Your task to perform on an android device: toggle location history Image 0: 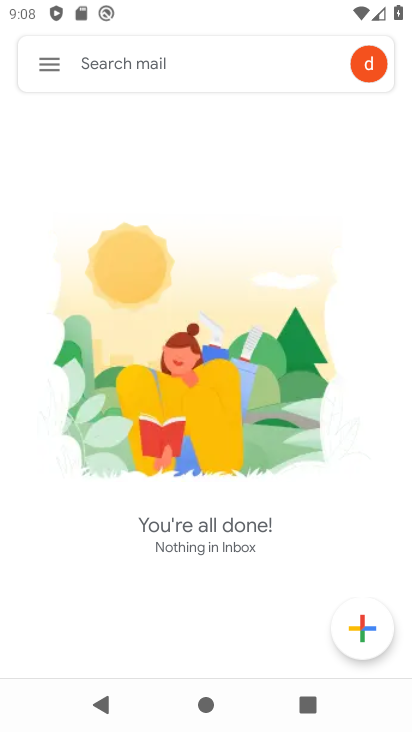
Step 0: click (45, 66)
Your task to perform on an android device: toggle location history Image 1: 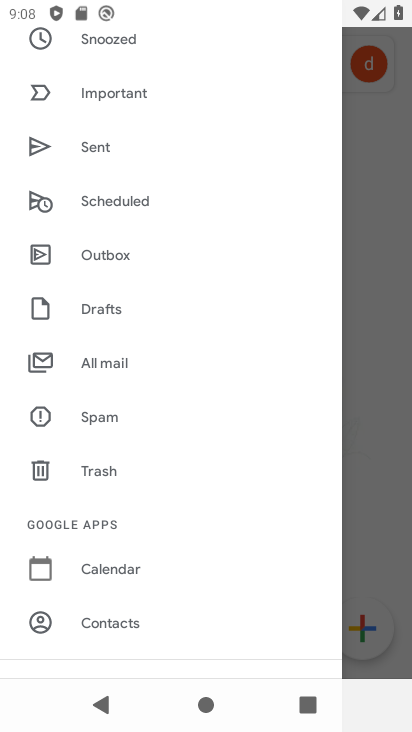
Step 1: drag from (132, 610) to (249, 188)
Your task to perform on an android device: toggle location history Image 2: 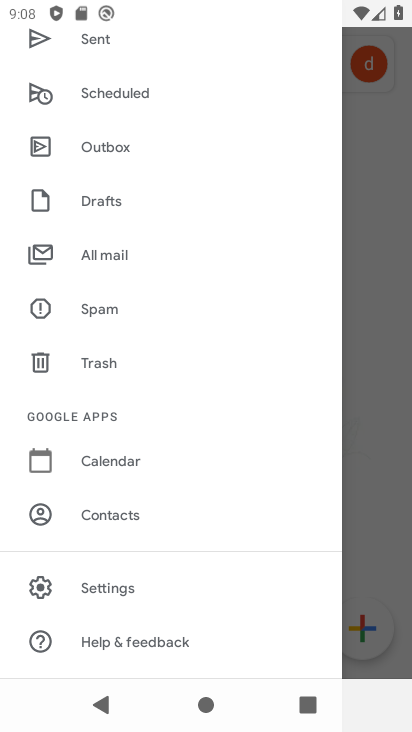
Step 2: press back button
Your task to perform on an android device: toggle location history Image 3: 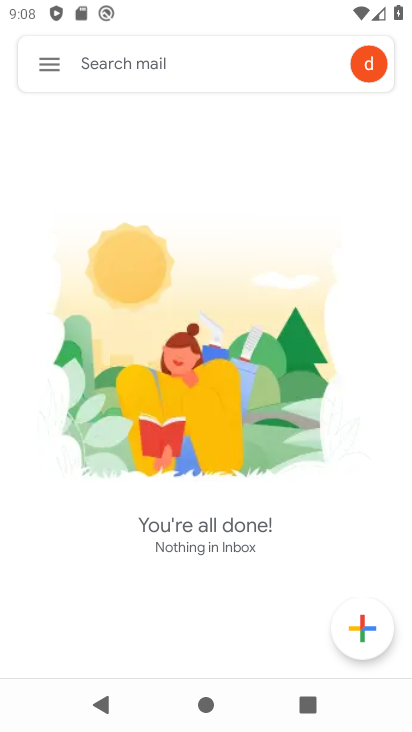
Step 3: press back button
Your task to perform on an android device: toggle location history Image 4: 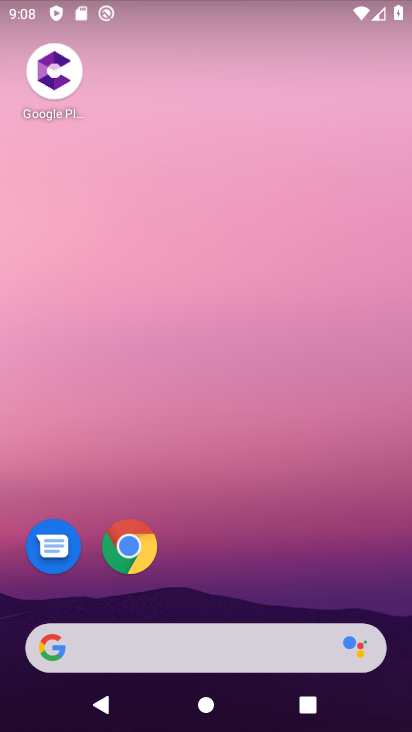
Step 4: drag from (231, 485) to (336, 47)
Your task to perform on an android device: toggle location history Image 5: 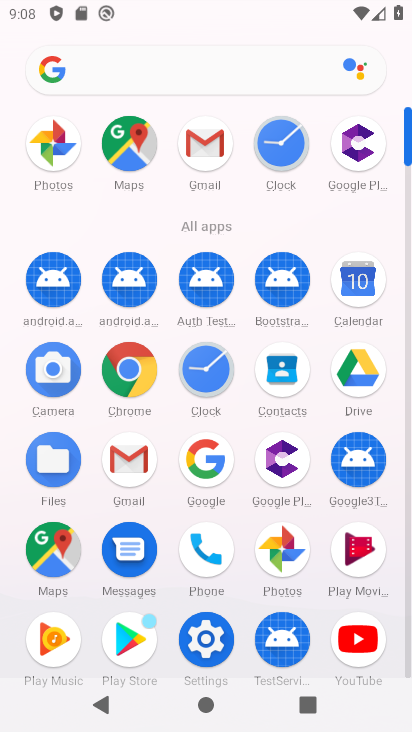
Step 5: click (204, 641)
Your task to perform on an android device: toggle location history Image 6: 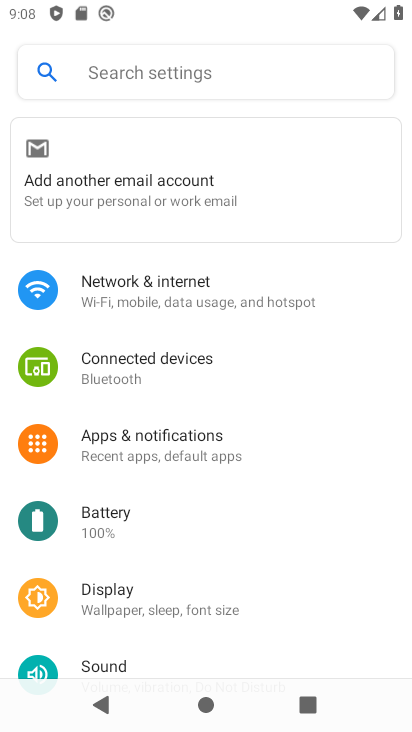
Step 6: drag from (155, 678) to (271, 185)
Your task to perform on an android device: toggle location history Image 7: 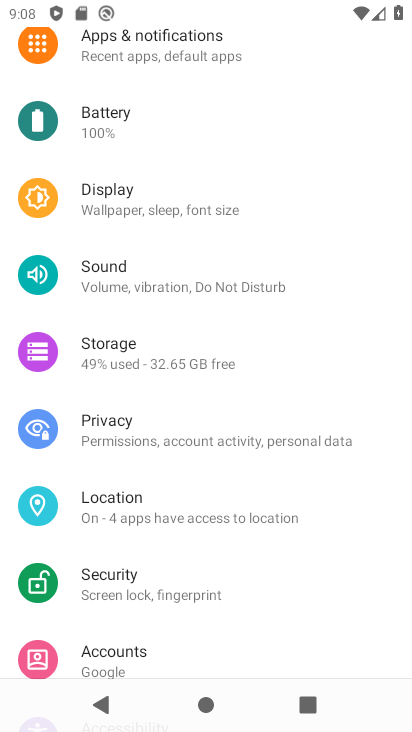
Step 7: click (136, 511)
Your task to perform on an android device: toggle location history Image 8: 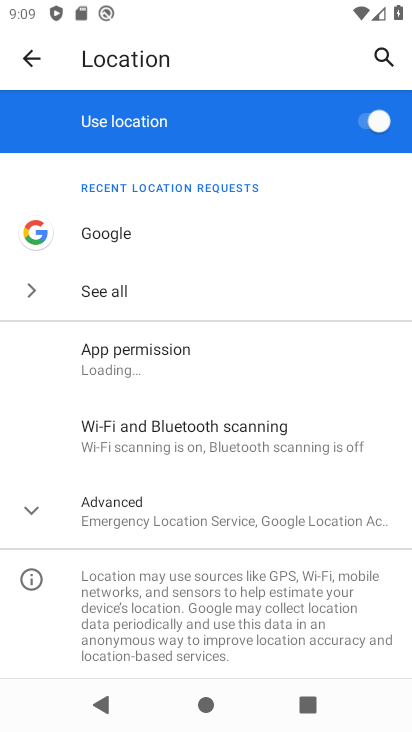
Step 8: click (166, 521)
Your task to perform on an android device: toggle location history Image 9: 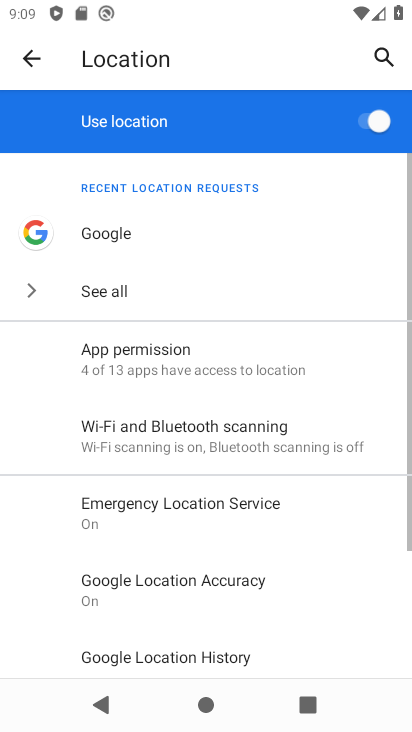
Step 9: click (197, 656)
Your task to perform on an android device: toggle location history Image 10: 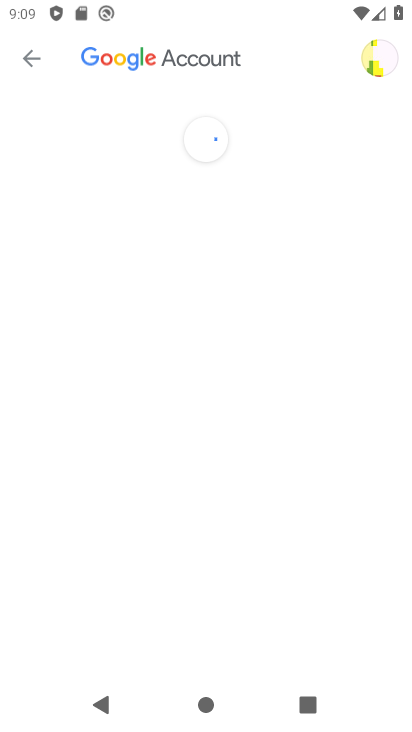
Step 10: drag from (223, 642) to (279, 280)
Your task to perform on an android device: toggle location history Image 11: 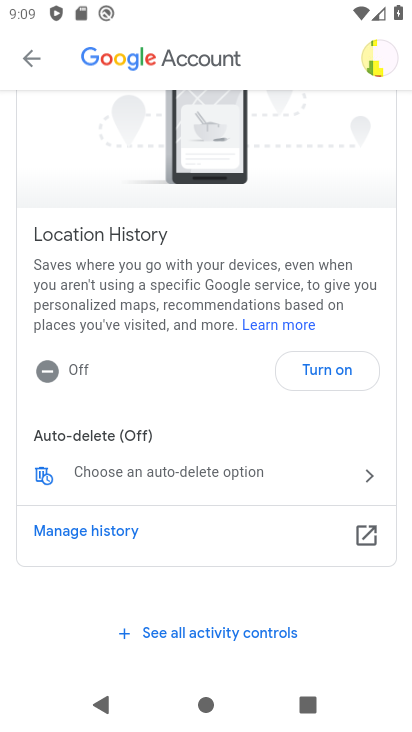
Step 11: click (316, 369)
Your task to perform on an android device: toggle location history Image 12: 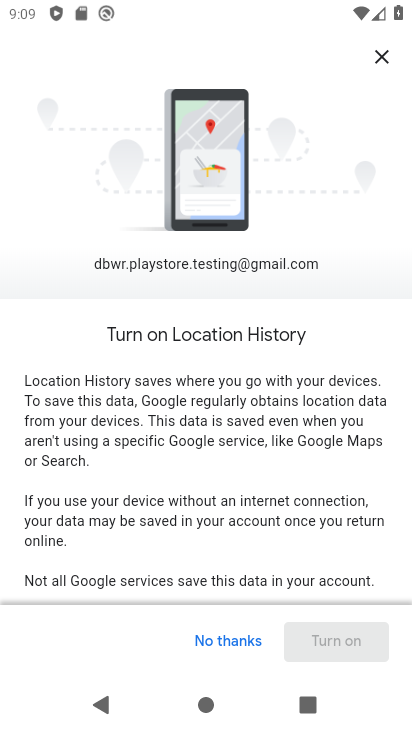
Step 12: drag from (197, 537) to (291, 40)
Your task to perform on an android device: toggle location history Image 13: 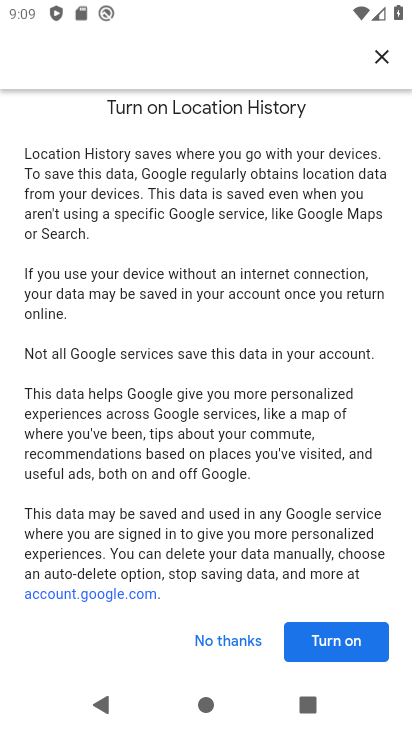
Step 13: click (319, 652)
Your task to perform on an android device: toggle location history Image 14: 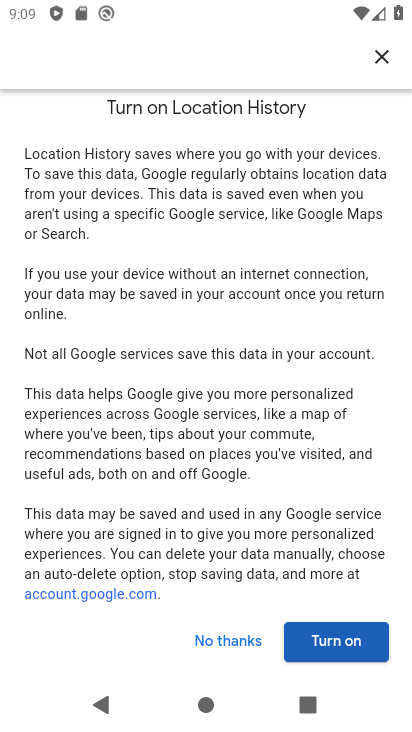
Step 14: click (341, 638)
Your task to perform on an android device: toggle location history Image 15: 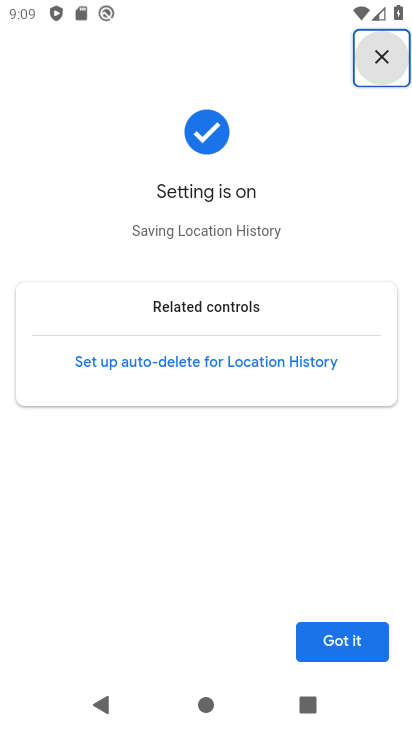
Step 15: task complete